Your task to perform on an android device: Show the shopping cart on bestbuy. Search for "razer thresher" on bestbuy, select the first entry, add it to the cart, then select checkout. Image 0: 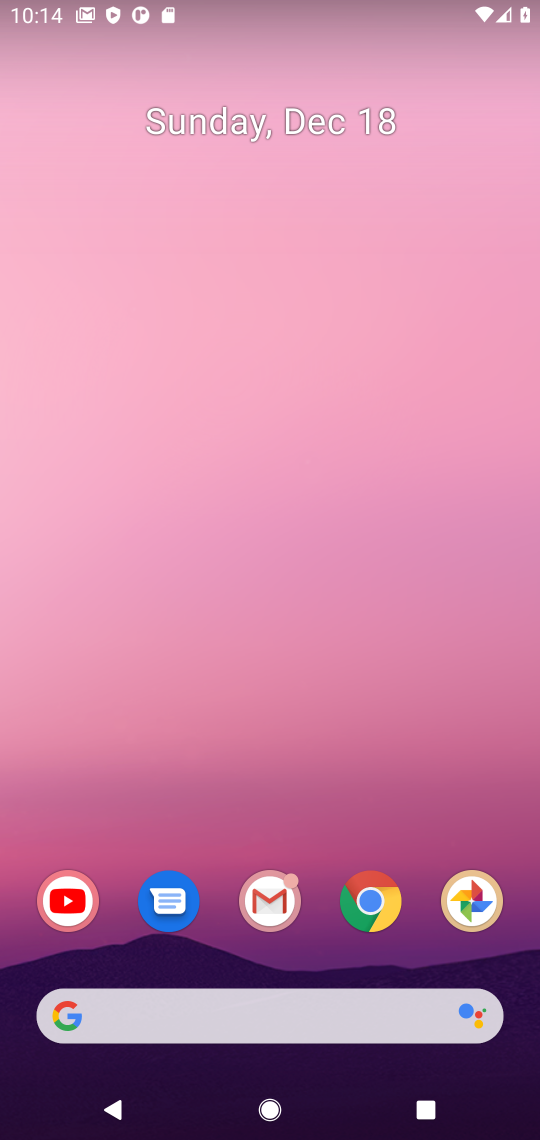
Step 0: click (351, 923)
Your task to perform on an android device: Show the shopping cart on bestbuy. Search for "razer thresher" on bestbuy, select the first entry, add it to the cart, then select checkout. Image 1: 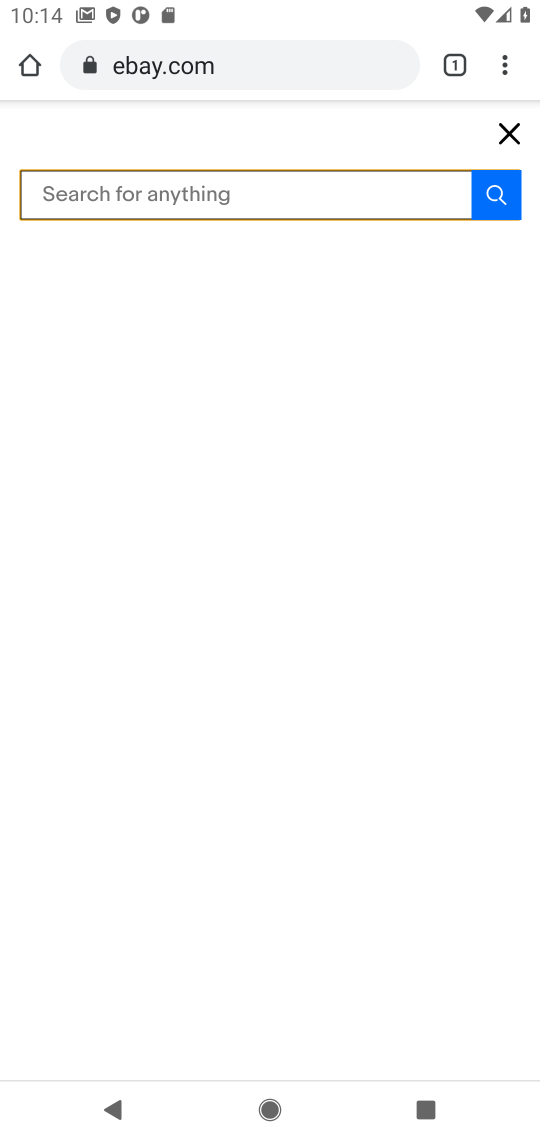
Step 1: click (272, 65)
Your task to perform on an android device: Show the shopping cart on bestbuy. Search for "razer thresher" on bestbuy, select the first entry, add it to the cart, then select checkout. Image 2: 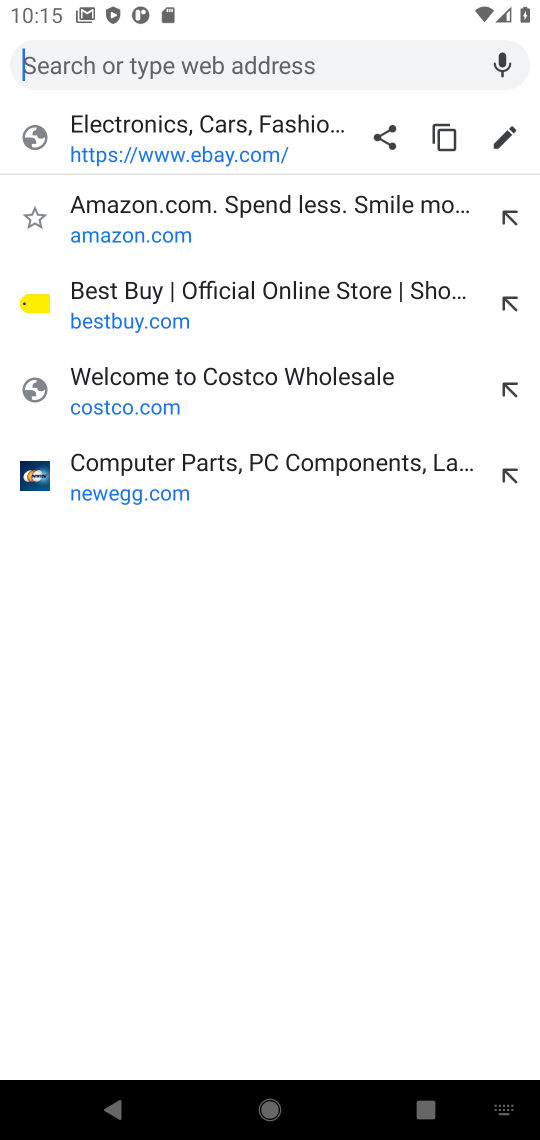
Step 2: type "bestbuy"
Your task to perform on an android device: Show the shopping cart on bestbuy. Search for "razer thresher" on bestbuy, select the first entry, add it to the cart, then select checkout. Image 3: 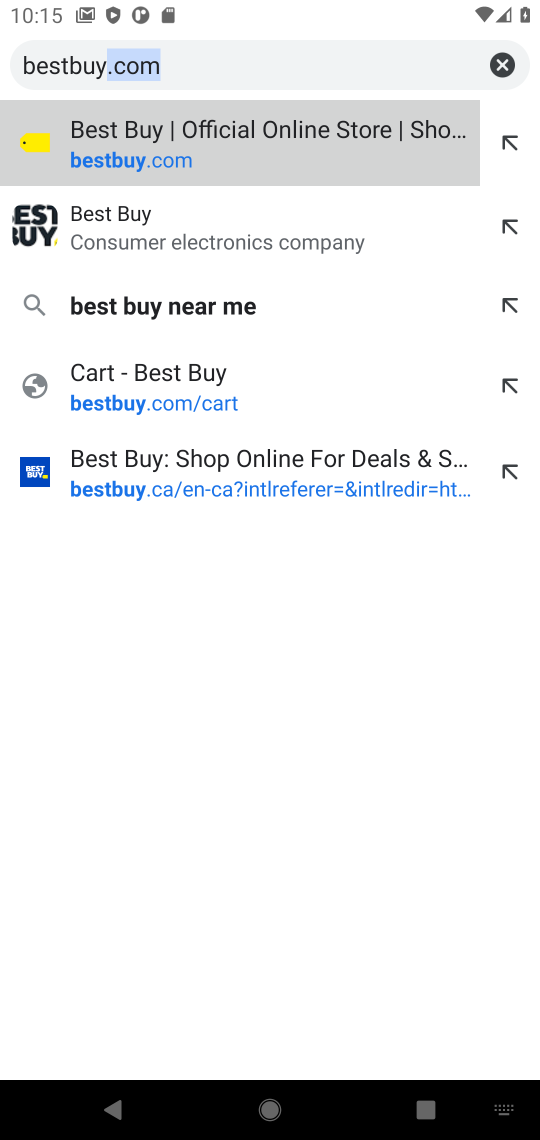
Step 3: click (182, 133)
Your task to perform on an android device: Show the shopping cart on bestbuy. Search for "razer thresher" on bestbuy, select the first entry, add it to the cart, then select checkout. Image 4: 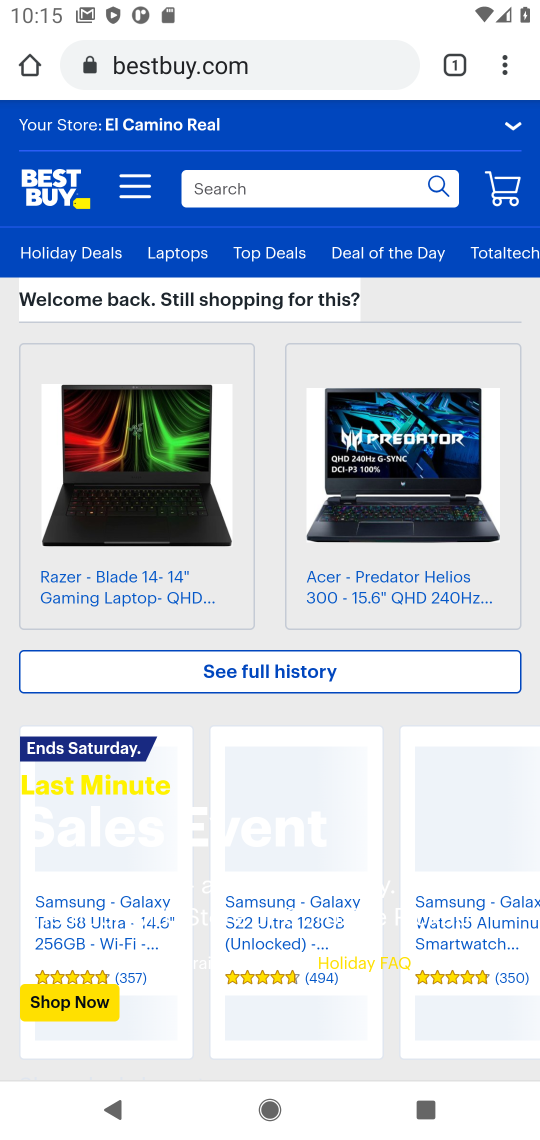
Step 4: click (283, 197)
Your task to perform on an android device: Show the shopping cart on bestbuy. Search for "razer thresher" on bestbuy, select the first entry, add it to the cart, then select checkout. Image 5: 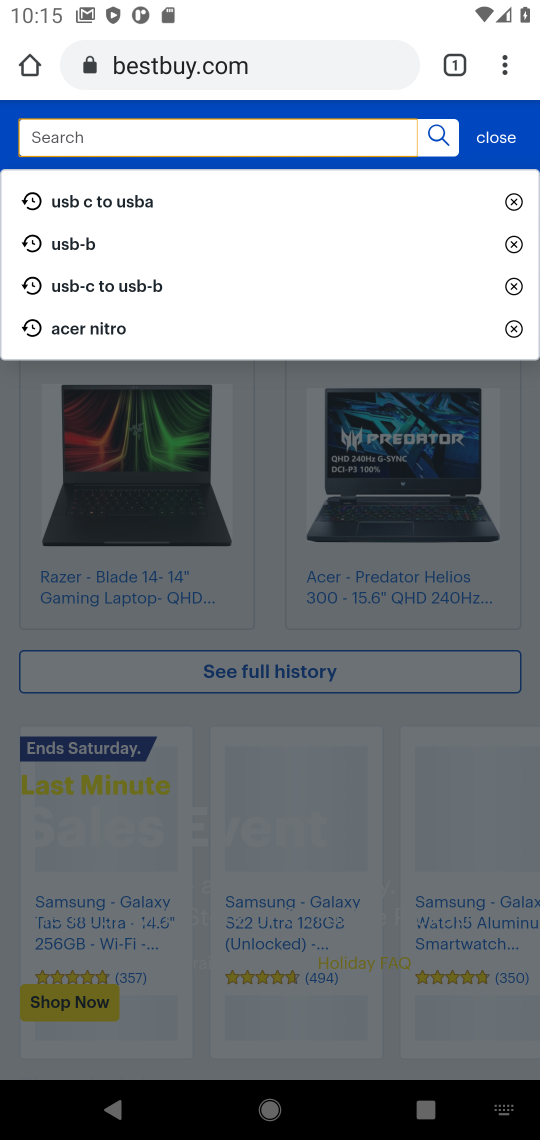
Step 5: type "razer thresher"
Your task to perform on an android device: Show the shopping cart on bestbuy. Search for "razer thresher" on bestbuy, select the first entry, add it to the cart, then select checkout. Image 6: 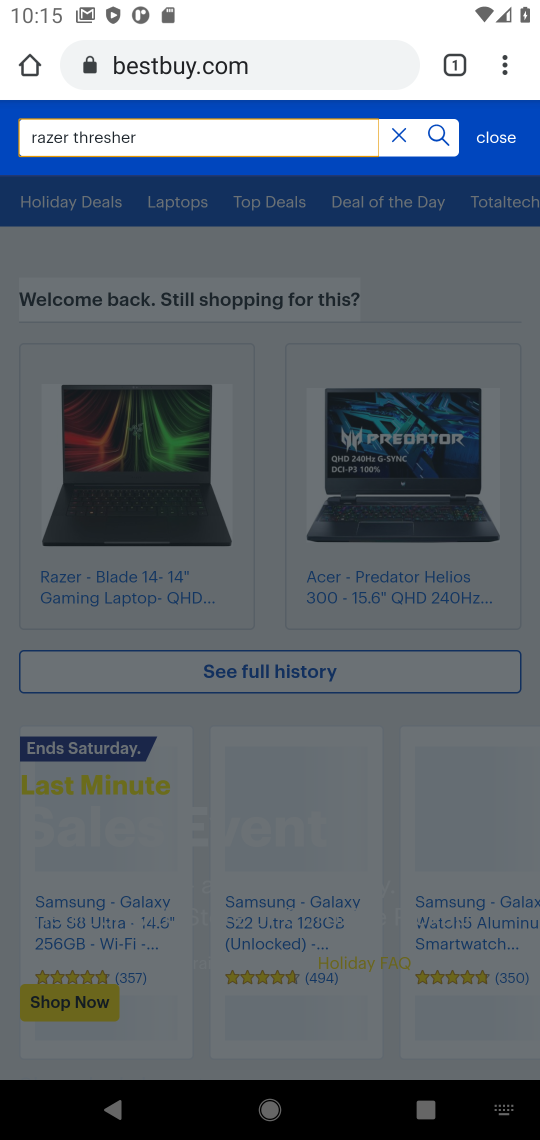
Step 6: click (442, 129)
Your task to perform on an android device: Show the shopping cart on bestbuy. Search for "razer thresher" on bestbuy, select the first entry, add it to the cart, then select checkout. Image 7: 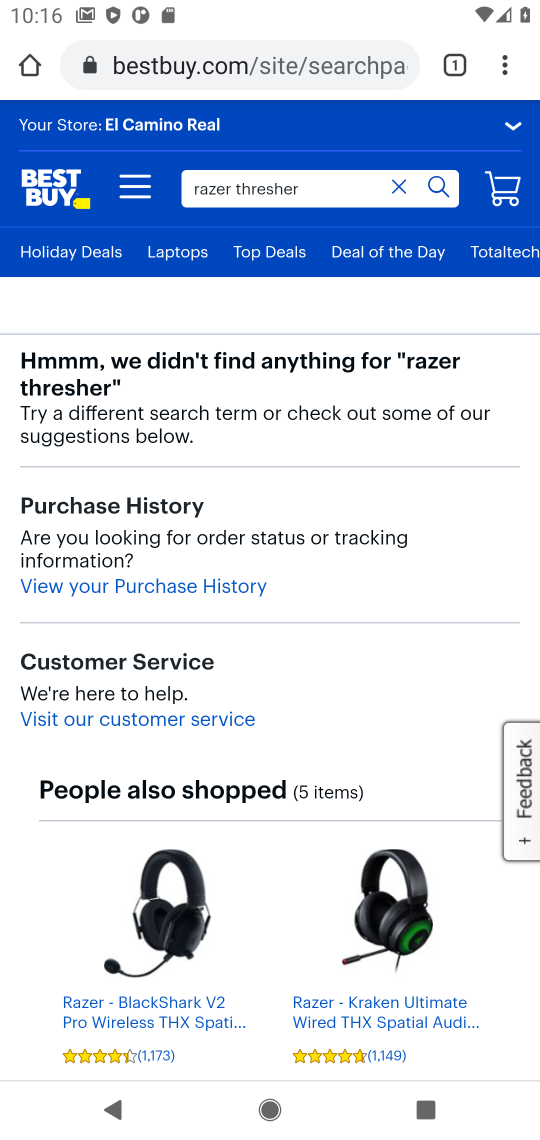
Step 7: task complete